Your task to perform on an android device: change the upload size in google photos Image 0: 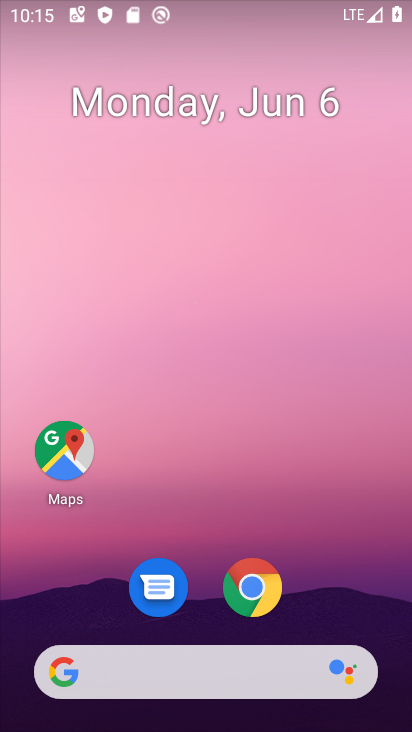
Step 0: drag from (135, 728) to (253, 0)
Your task to perform on an android device: change the upload size in google photos Image 1: 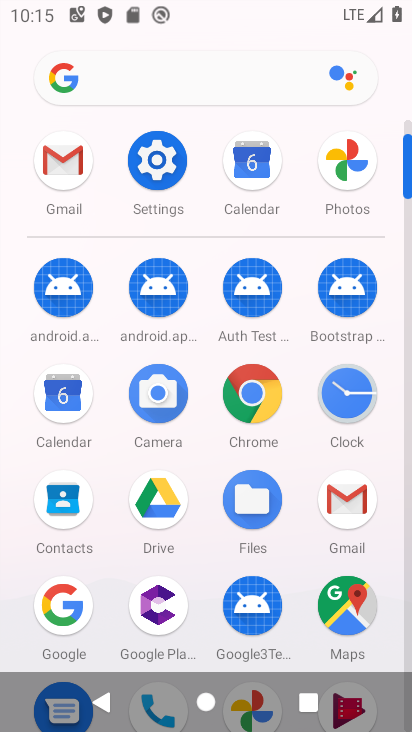
Step 1: click (336, 162)
Your task to perform on an android device: change the upload size in google photos Image 2: 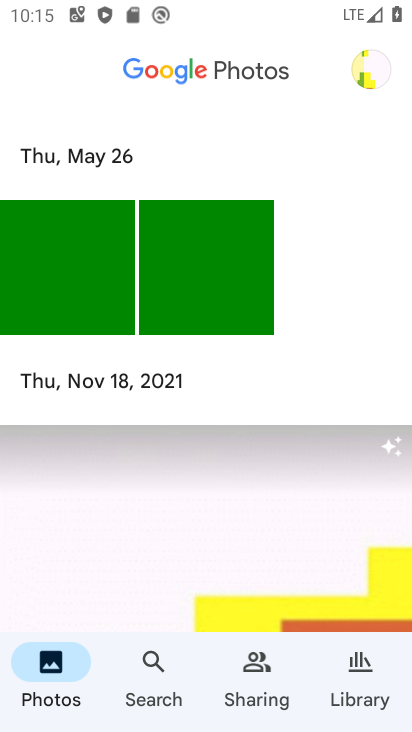
Step 2: click (381, 68)
Your task to perform on an android device: change the upload size in google photos Image 3: 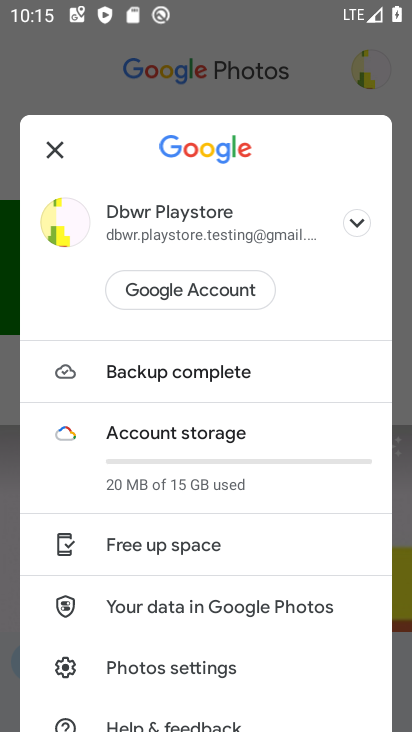
Step 3: click (187, 672)
Your task to perform on an android device: change the upload size in google photos Image 4: 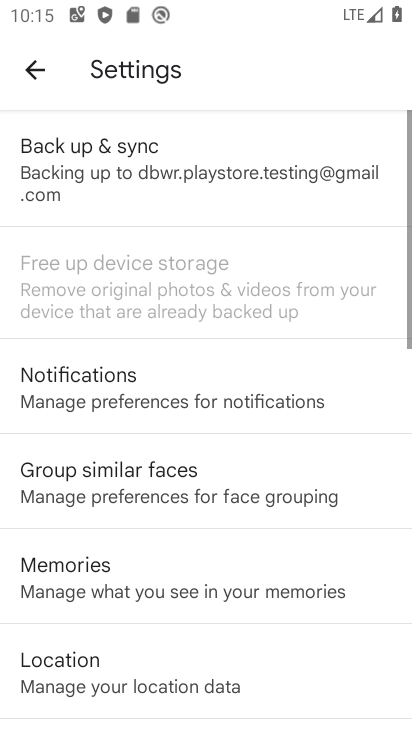
Step 4: click (194, 179)
Your task to perform on an android device: change the upload size in google photos Image 5: 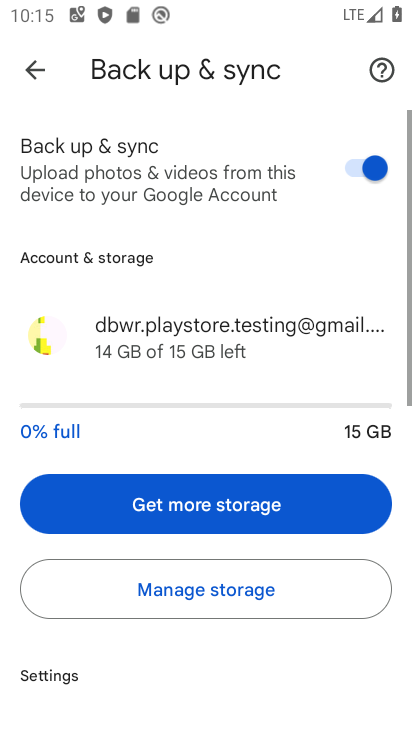
Step 5: drag from (163, 661) to (253, 6)
Your task to perform on an android device: change the upload size in google photos Image 6: 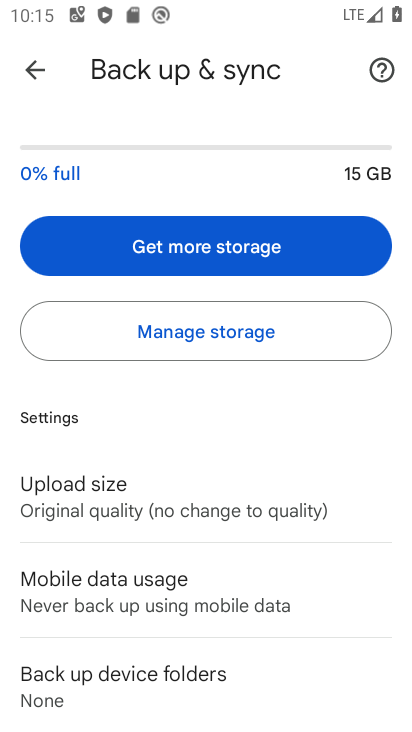
Step 6: click (174, 511)
Your task to perform on an android device: change the upload size in google photos Image 7: 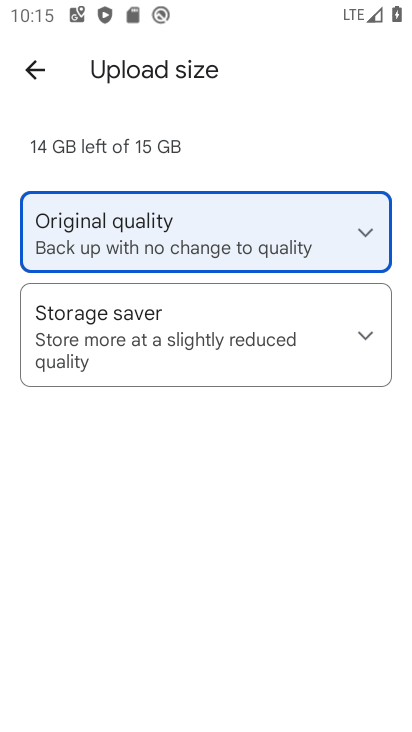
Step 7: click (124, 338)
Your task to perform on an android device: change the upload size in google photos Image 8: 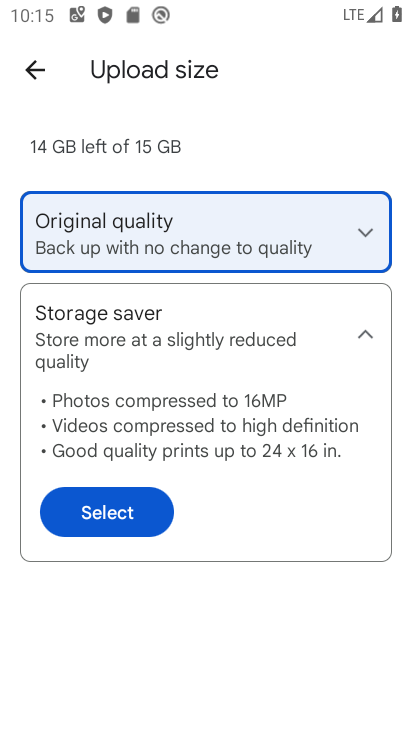
Step 8: click (91, 521)
Your task to perform on an android device: change the upload size in google photos Image 9: 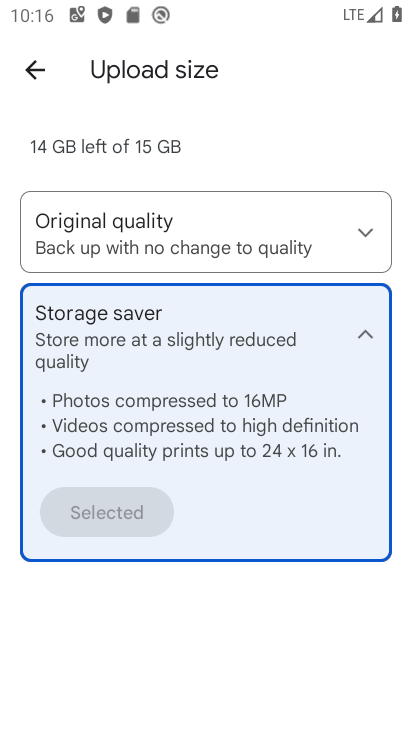
Step 9: task complete